Your task to perform on an android device: toggle sleep mode Image 0: 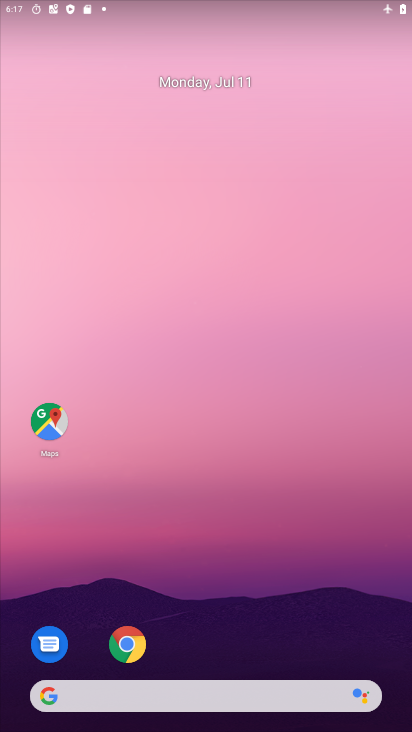
Step 0: drag from (240, 694) to (292, 78)
Your task to perform on an android device: toggle sleep mode Image 1: 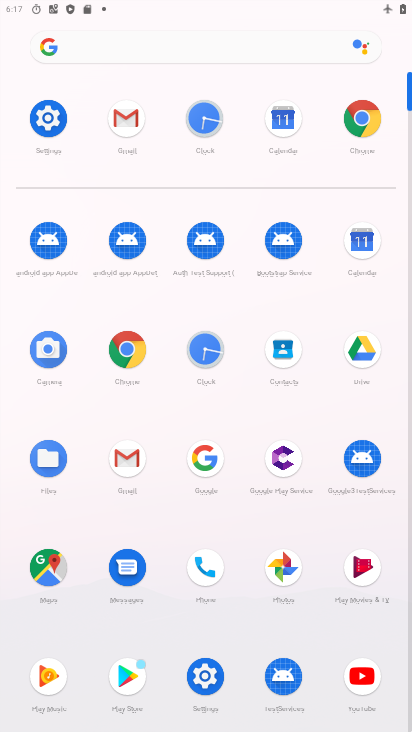
Step 1: click (46, 113)
Your task to perform on an android device: toggle sleep mode Image 2: 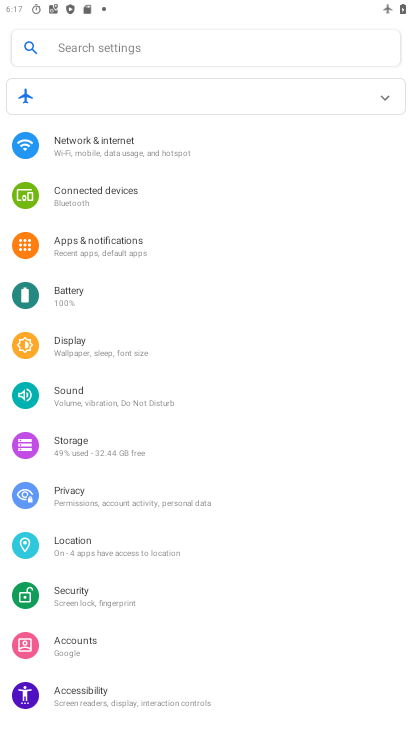
Step 2: click (110, 343)
Your task to perform on an android device: toggle sleep mode Image 3: 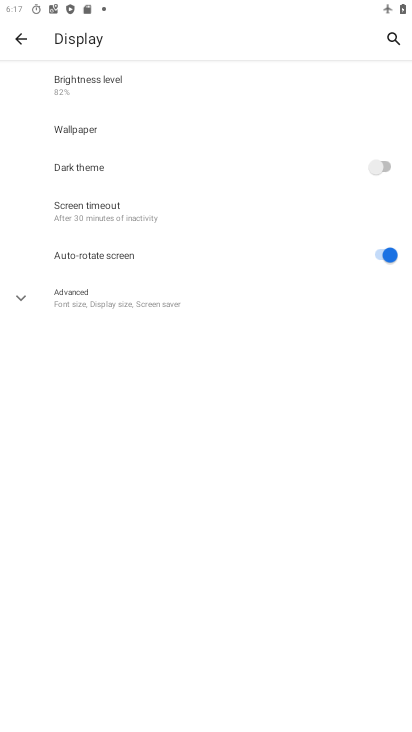
Step 3: task complete